Your task to perform on an android device: Go to eBay Image 0: 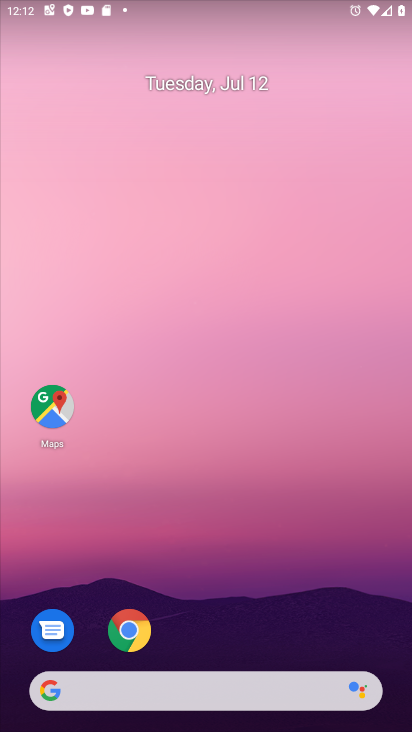
Step 0: click (127, 632)
Your task to perform on an android device: Go to eBay Image 1: 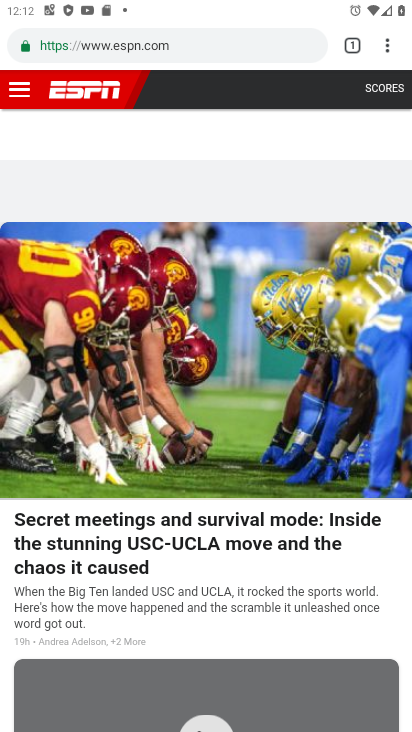
Step 1: click (219, 41)
Your task to perform on an android device: Go to eBay Image 2: 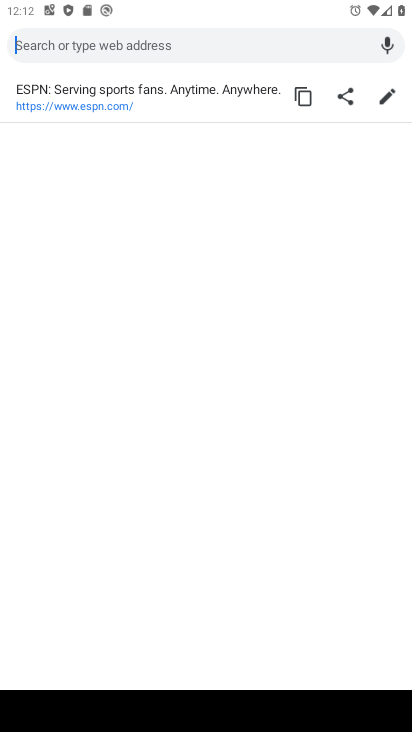
Step 2: type "eBay"
Your task to perform on an android device: Go to eBay Image 3: 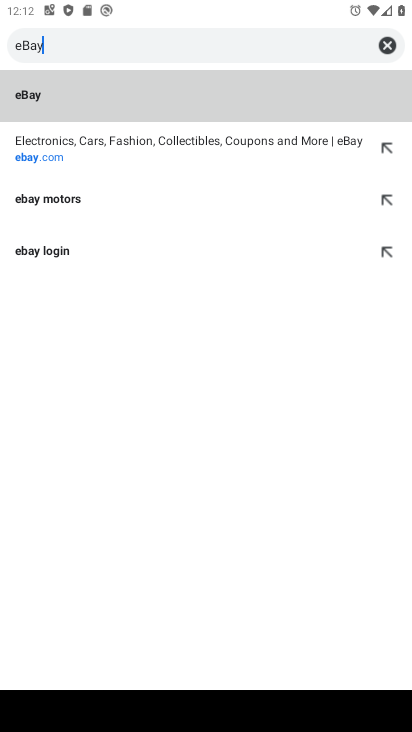
Step 3: click (38, 107)
Your task to perform on an android device: Go to eBay Image 4: 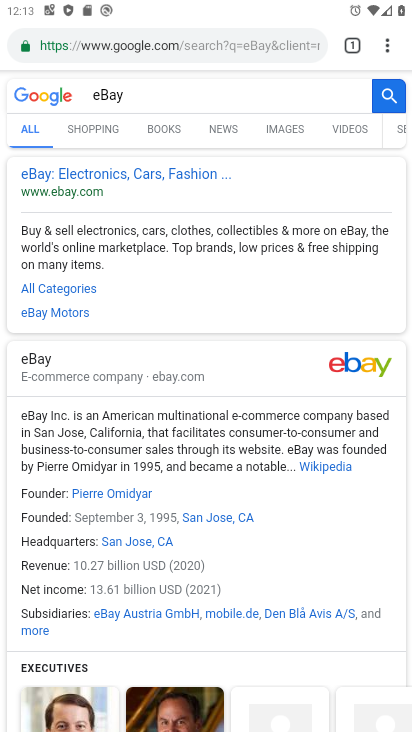
Step 4: click (108, 186)
Your task to perform on an android device: Go to eBay Image 5: 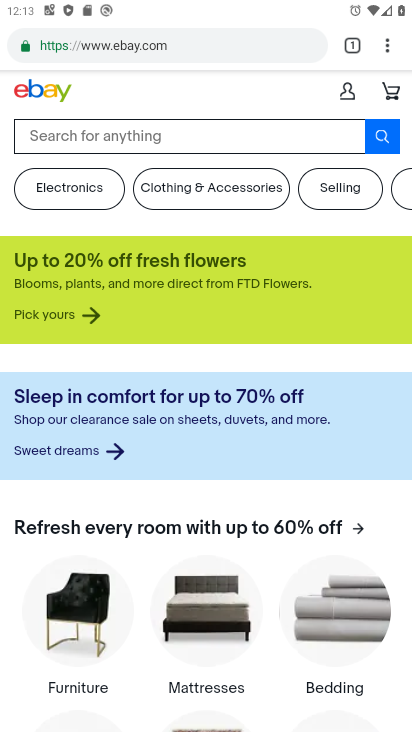
Step 5: task complete